Your task to perform on an android device: check storage Image 0: 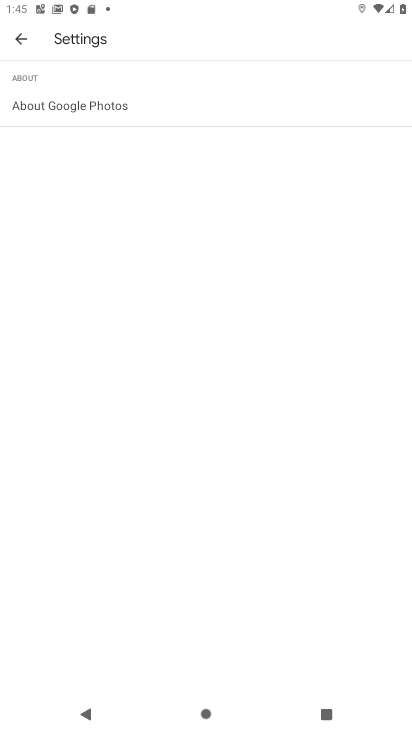
Step 0: press home button
Your task to perform on an android device: check storage Image 1: 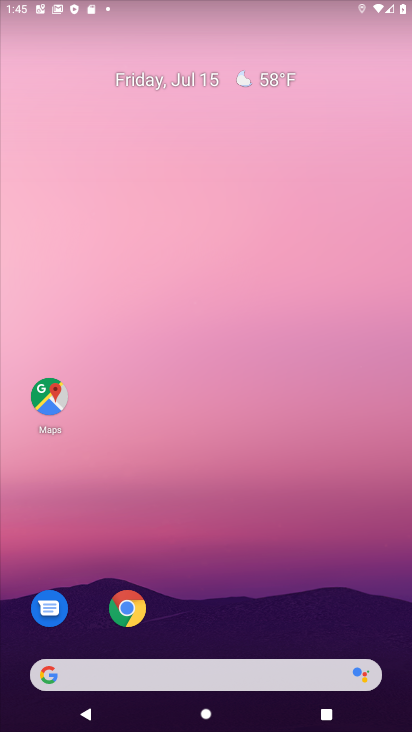
Step 1: drag from (311, 573) to (301, 85)
Your task to perform on an android device: check storage Image 2: 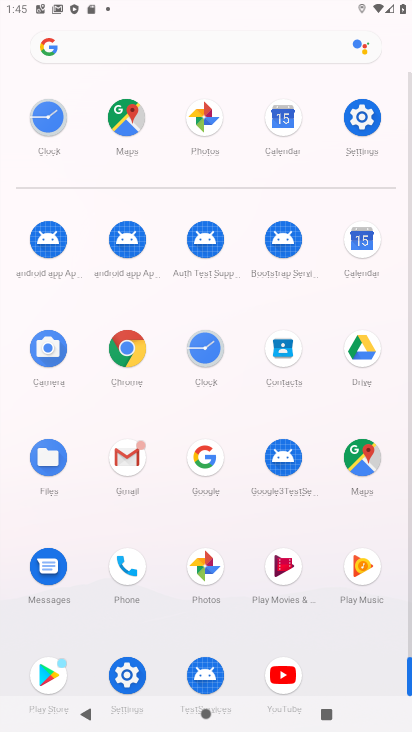
Step 2: click (131, 674)
Your task to perform on an android device: check storage Image 3: 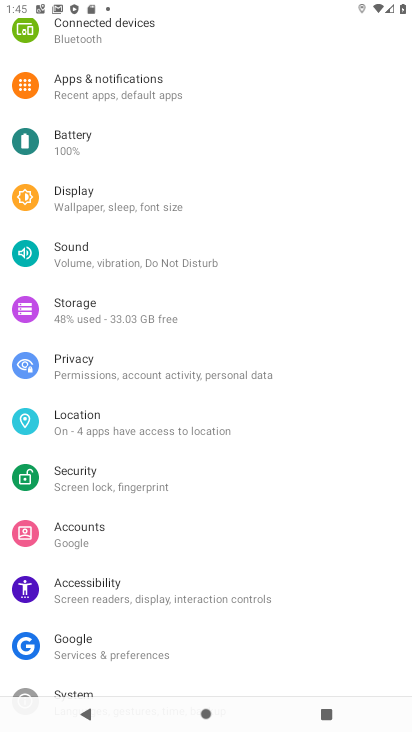
Step 3: click (78, 312)
Your task to perform on an android device: check storage Image 4: 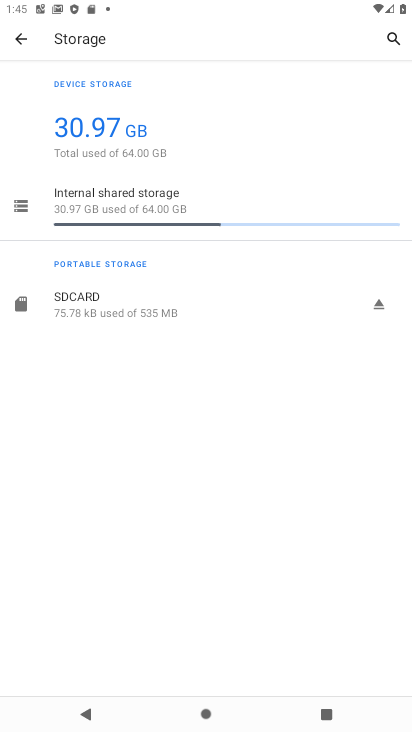
Step 4: task complete